Your task to perform on an android device: Open my contact list Image 0: 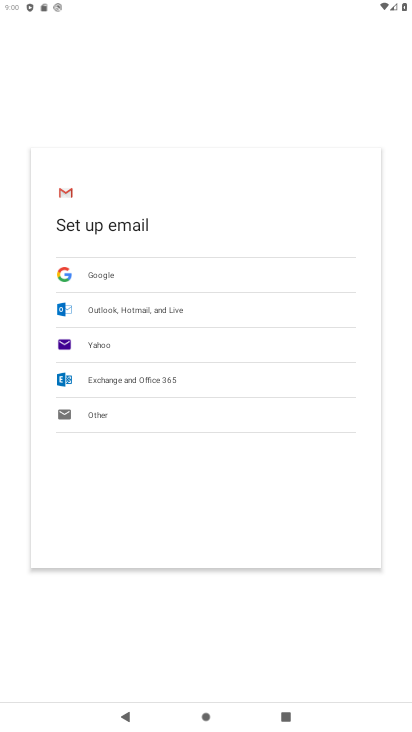
Step 0: press home button
Your task to perform on an android device: Open my contact list Image 1: 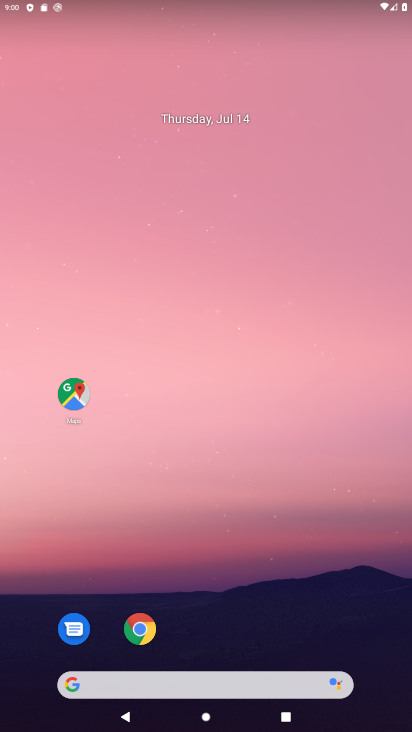
Step 1: drag from (252, 573) to (210, 89)
Your task to perform on an android device: Open my contact list Image 2: 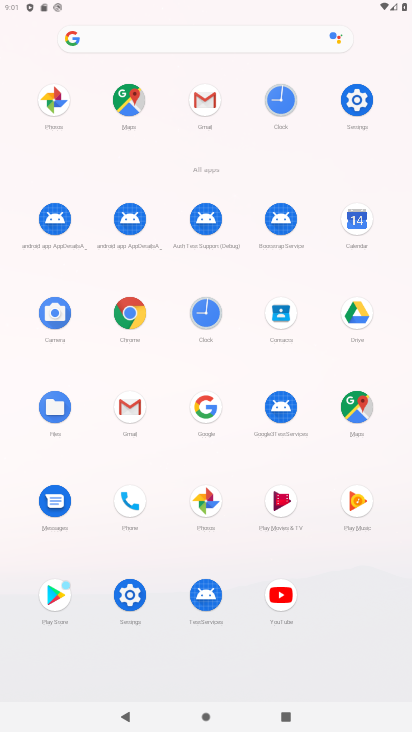
Step 2: click (126, 493)
Your task to perform on an android device: Open my contact list Image 3: 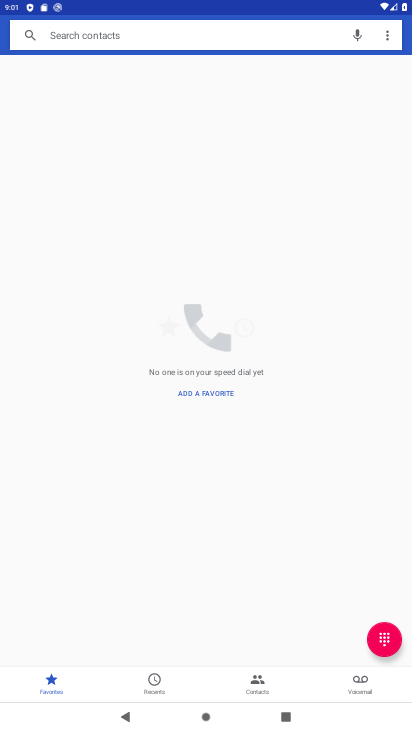
Step 3: click (243, 676)
Your task to perform on an android device: Open my contact list Image 4: 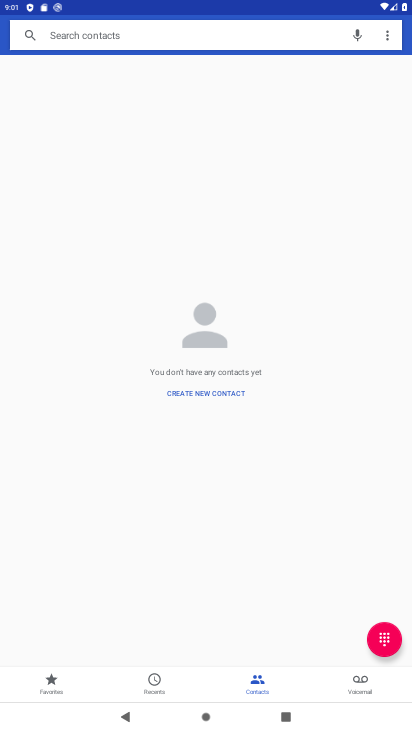
Step 4: task complete